Your task to perform on an android device: see sites visited before in the chrome app Image 0: 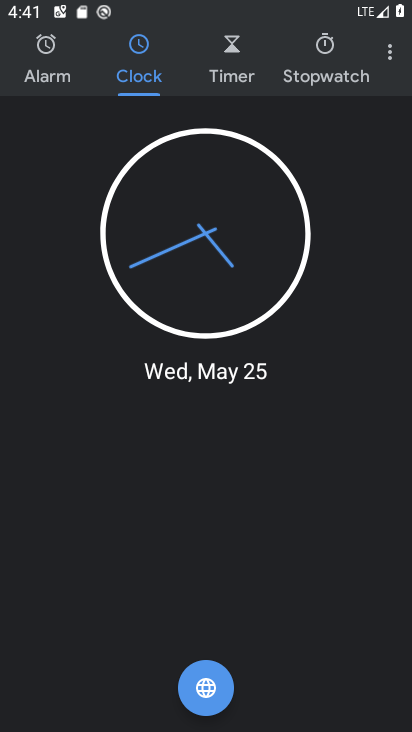
Step 0: press home button
Your task to perform on an android device: see sites visited before in the chrome app Image 1: 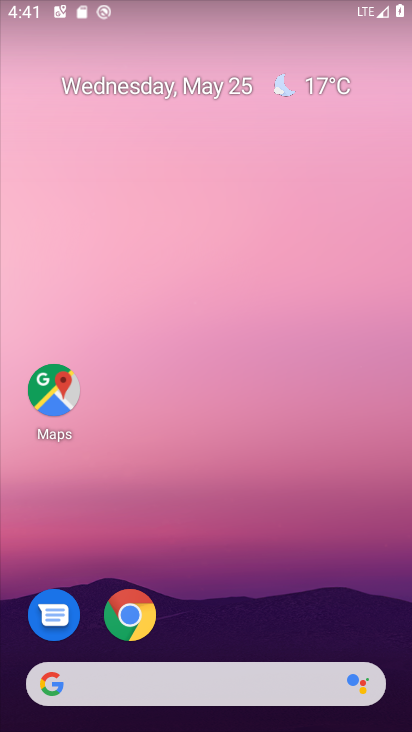
Step 1: click (132, 611)
Your task to perform on an android device: see sites visited before in the chrome app Image 2: 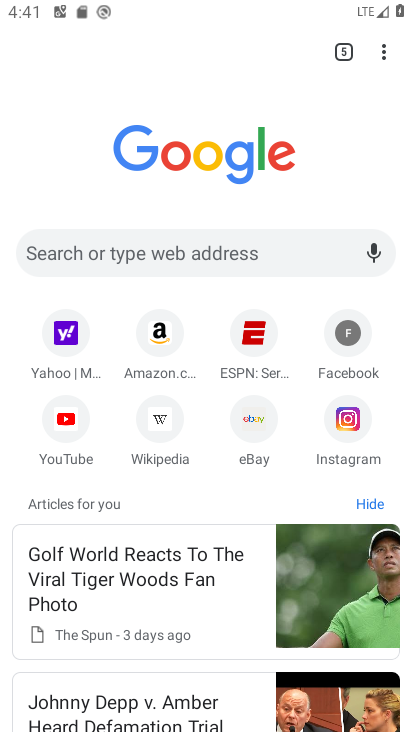
Step 2: click (376, 54)
Your task to perform on an android device: see sites visited before in the chrome app Image 3: 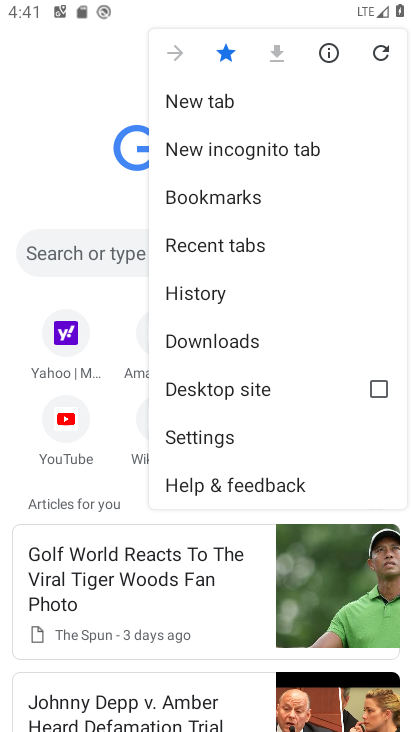
Step 3: click (214, 281)
Your task to perform on an android device: see sites visited before in the chrome app Image 4: 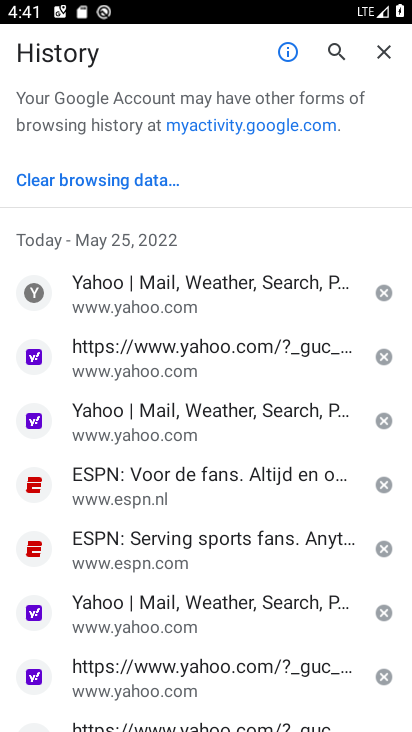
Step 4: task complete